Your task to perform on an android device: change the clock style Image 0: 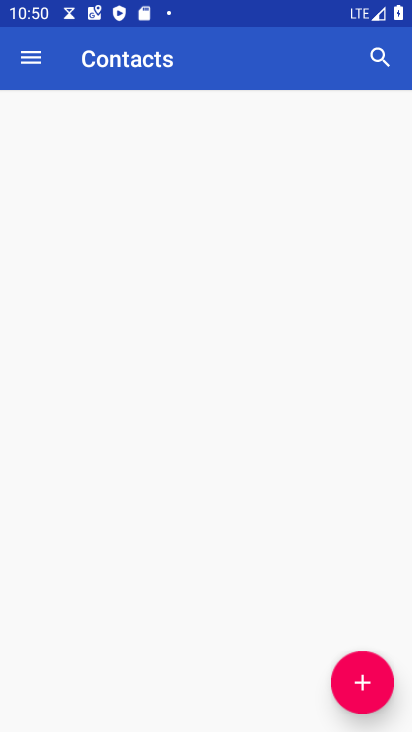
Step 0: drag from (317, 569) to (215, 134)
Your task to perform on an android device: change the clock style Image 1: 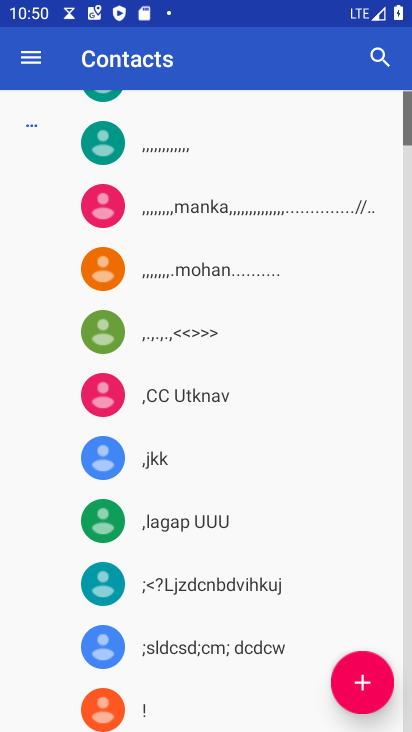
Step 1: press home button
Your task to perform on an android device: change the clock style Image 2: 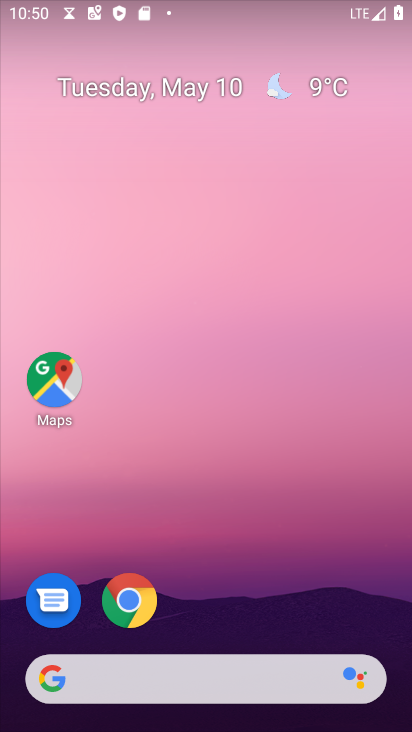
Step 2: drag from (255, 611) to (210, 80)
Your task to perform on an android device: change the clock style Image 3: 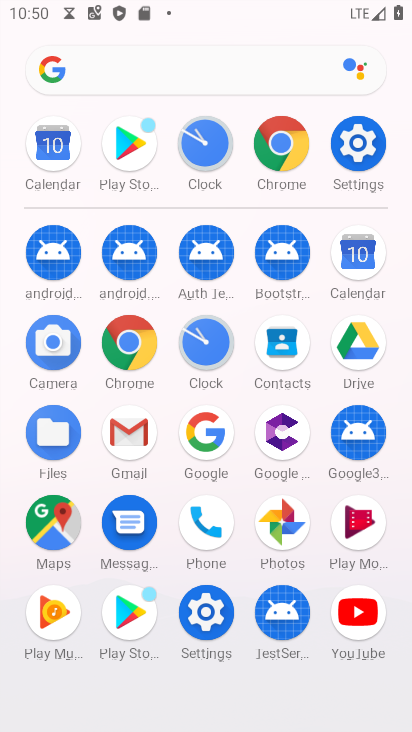
Step 3: click (204, 163)
Your task to perform on an android device: change the clock style Image 4: 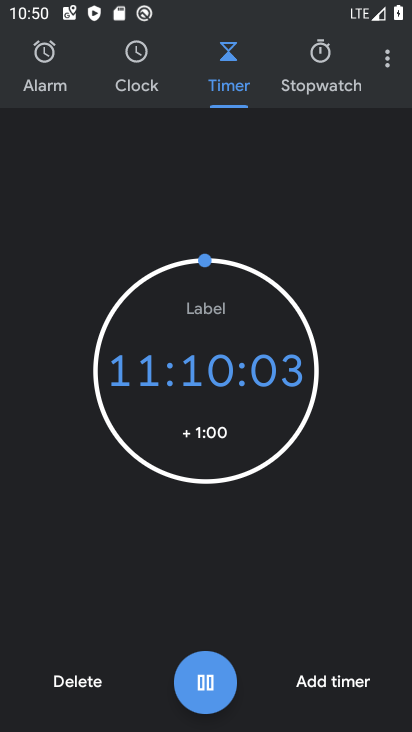
Step 4: click (381, 57)
Your task to perform on an android device: change the clock style Image 5: 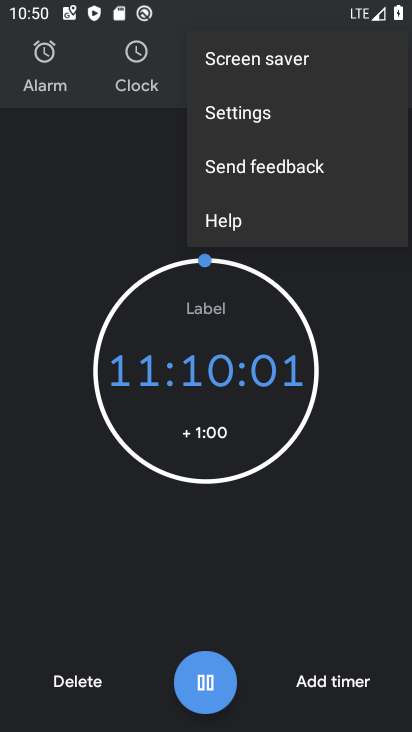
Step 5: click (312, 113)
Your task to perform on an android device: change the clock style Image 6: 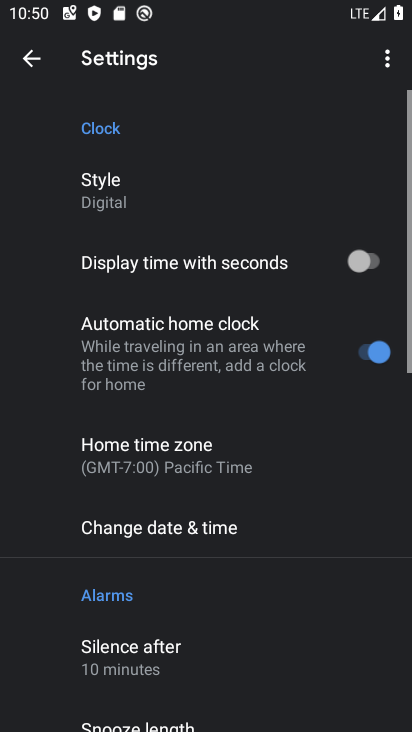
Step 6: click (204, 198)
Your task to perform on an android device: change the clock style Image 7: 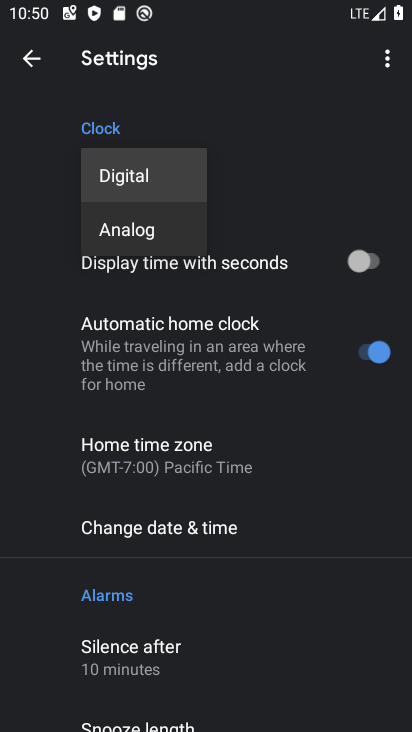
Step 7: click (134, 222)
Your task to perform on an android device: change the clock style Image 8: 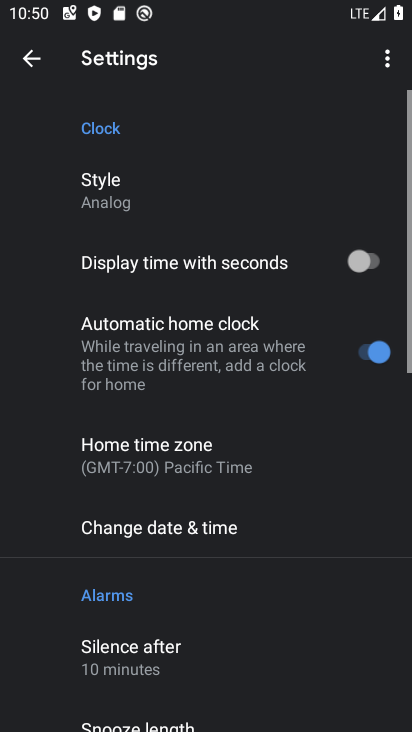
Step 8: task complete